Your task to perform on an android device: open device folders in google photos Image 0: 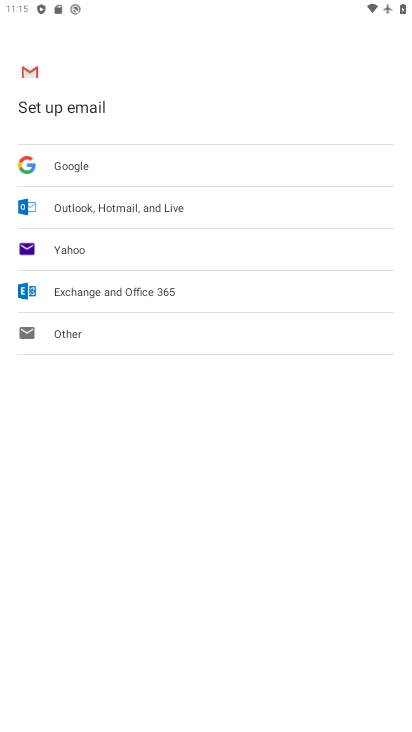
Step 0: press home button
Your task to perform on an android device: open device folders in google photos Image 1: 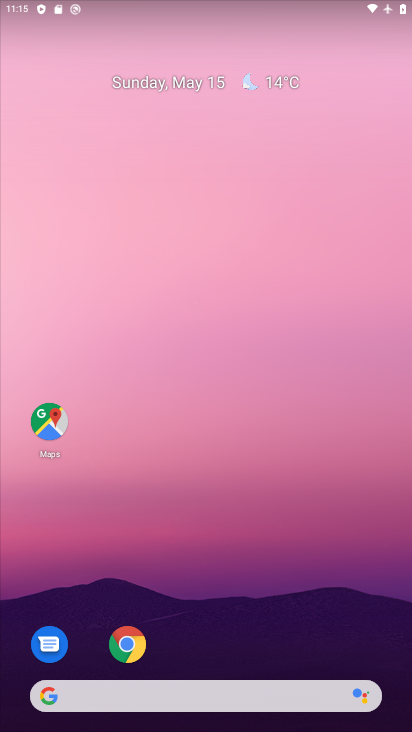
Step 1: drag from (282, 659) to (21, 108)
Your task to perform on an android device: open device folders in google photos Image 2: 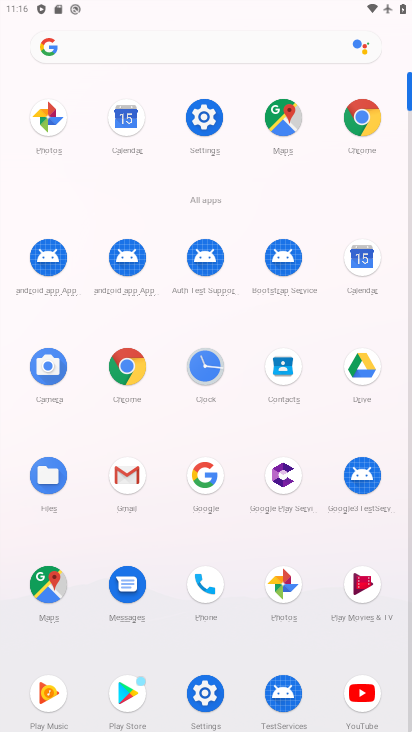
Step 2: click (273, 579)
Your task to perform on an android device: open device folders in google photos Image 3: 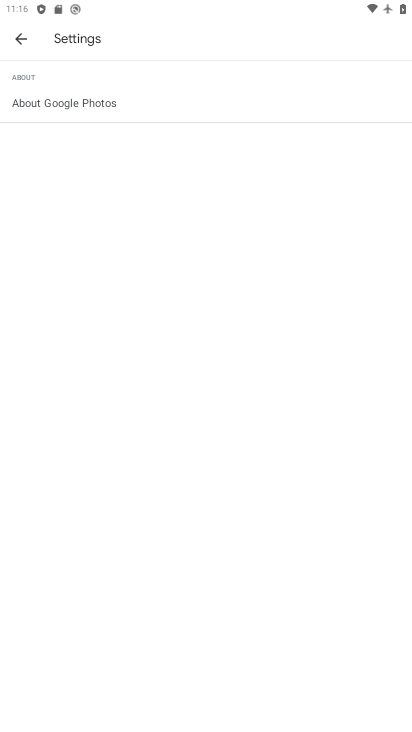
Step 3: click (23, 29)
Your task to perform on an android device: open device folders in google photos Image 4: 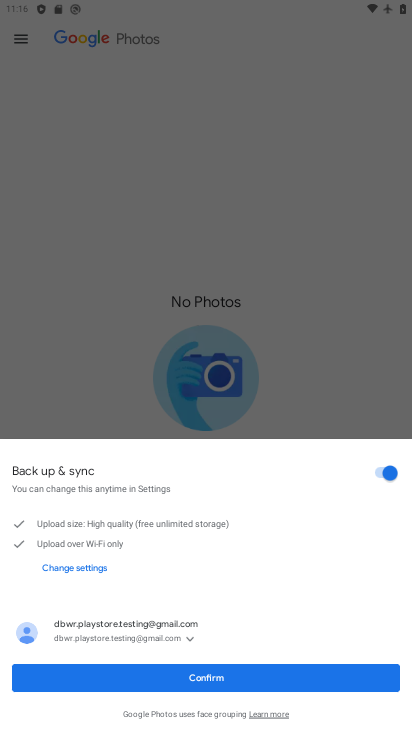
Step 4: click (23, 39)
Your task to perform on an android device: open device folders in google photos Image 5: 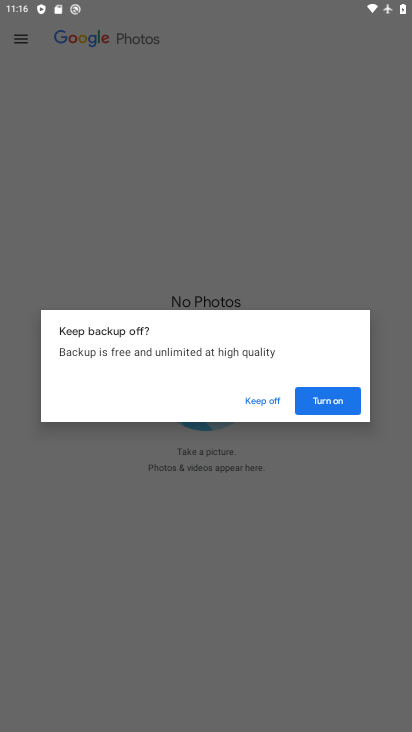
Step 5: click (264, 401)
Your task to perform on an android device: open device folders in google photos Image 6: 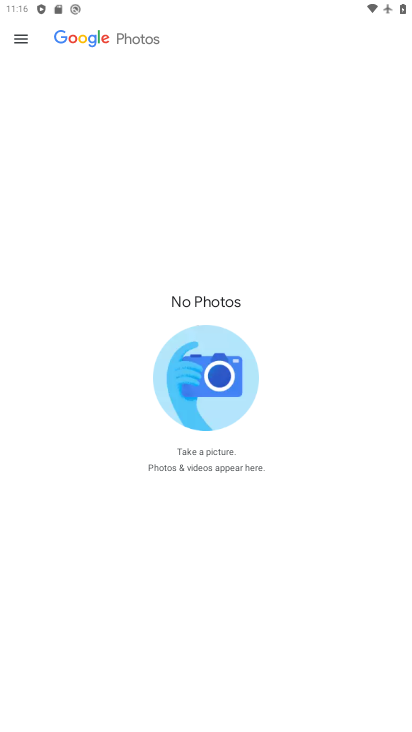
Step 6: click (20, 30)
Your task to perform on an android device: open device folders in google photos Image 7: 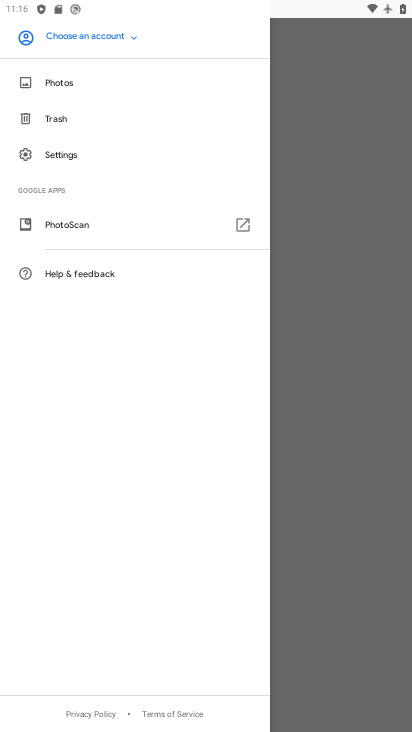
Step 7: drag from (148, 113) to (126, 428)
Your task to perform on an android device: open device folders in google photos Image 8: 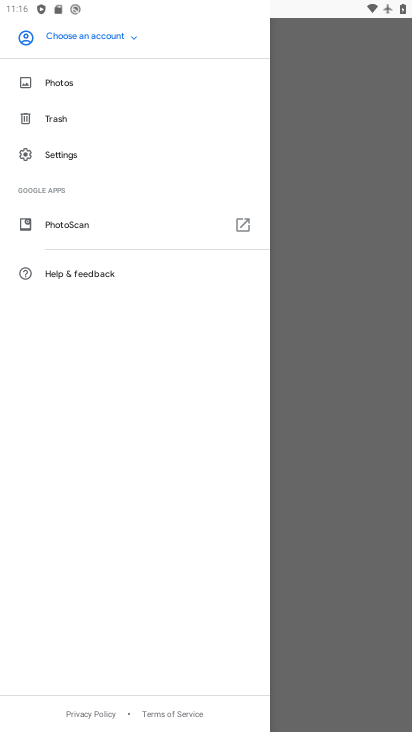
Step 8: click (343, 344)
Your task to perform on an android device: open device folders in google photos Image 9: 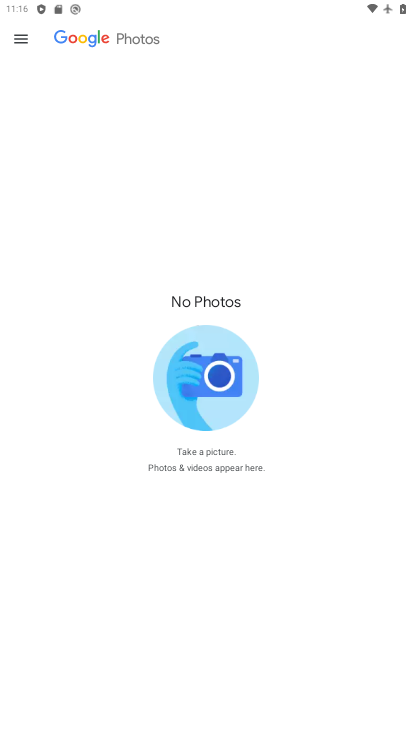
Step 9: task complete